Your task to perform on an android device: Open Reddit.com Image 0: 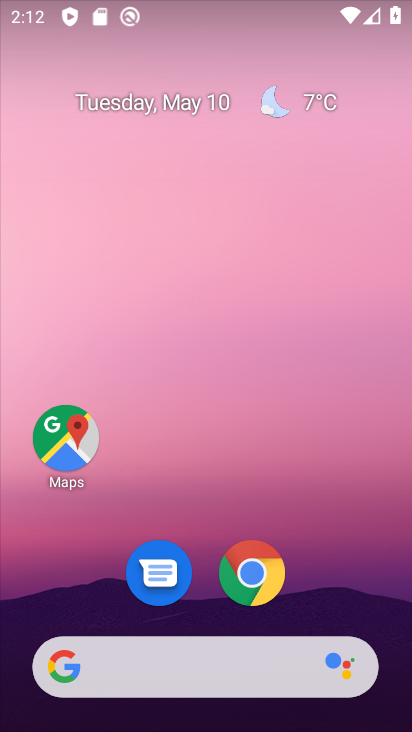
Step 0: click (174, 67)
Your task to perform on an android device: Open Reddit.com Image 1: 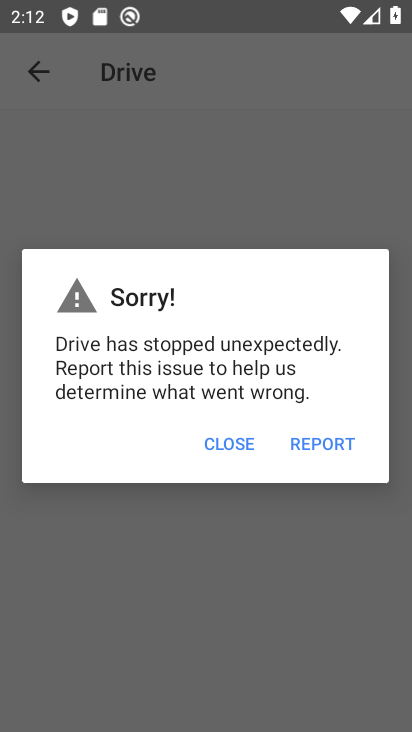
Step 1: press home button
Your task to perform on an android device: Open Reddit.com Image 2: 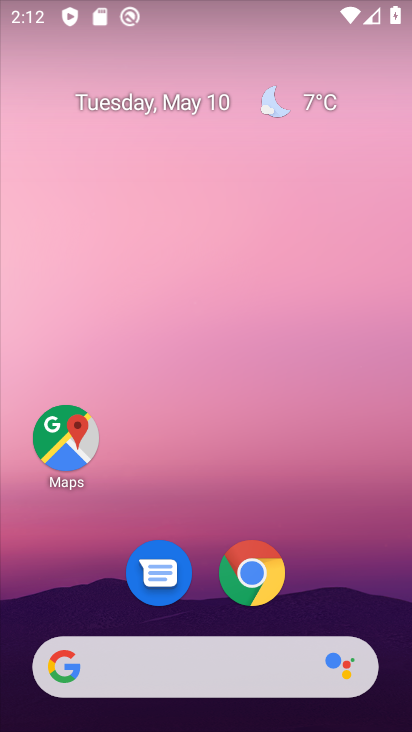
Step 2: click (253, 674)
Your task to perform on an android device: Open Reddit.com Image 3: 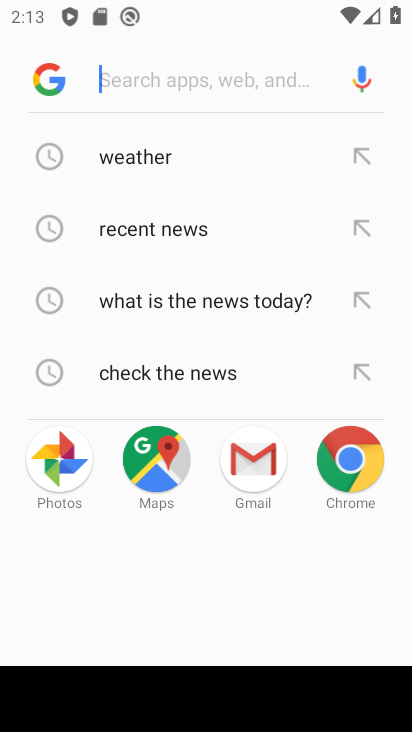
Step 3: type "reddit.com"
Your task to perform on an android device: Open Reddit.com Image 4: 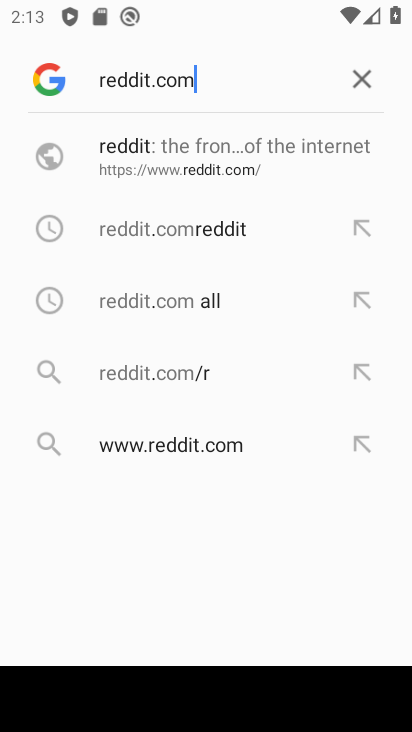
Step 4: click (168, 158)
Your task to perform on an android device: Open Reddit.com Image 5: 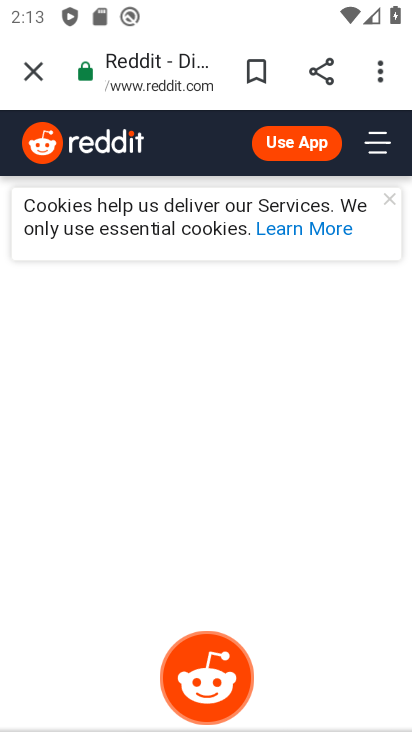
Step 5: task complete